Your task to perform on an android device: turn off sleep mode Image 0: 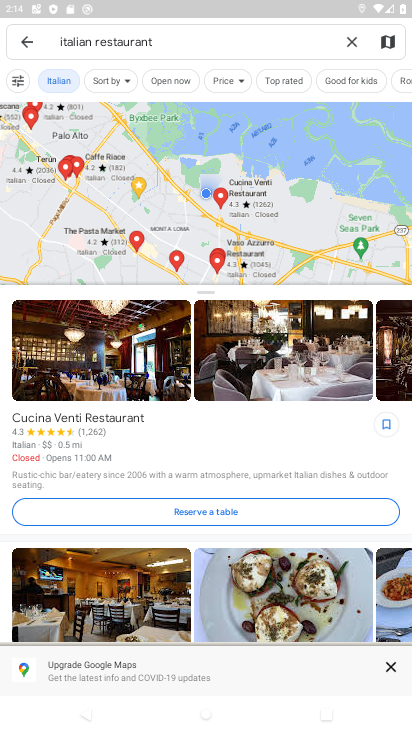
Step 0: press home button
Your task to perform on an android device: turn off sleep mode Image 1: 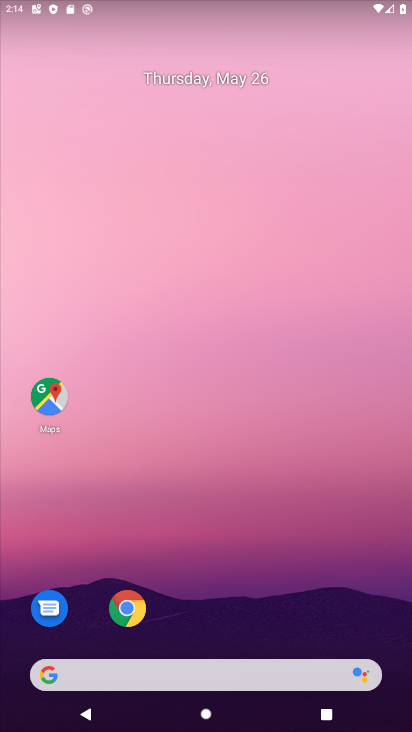
Step 1: drag from (341, 460) to (367, 81)
Your task to perform on an android device: turn off sleep mode Image 2: 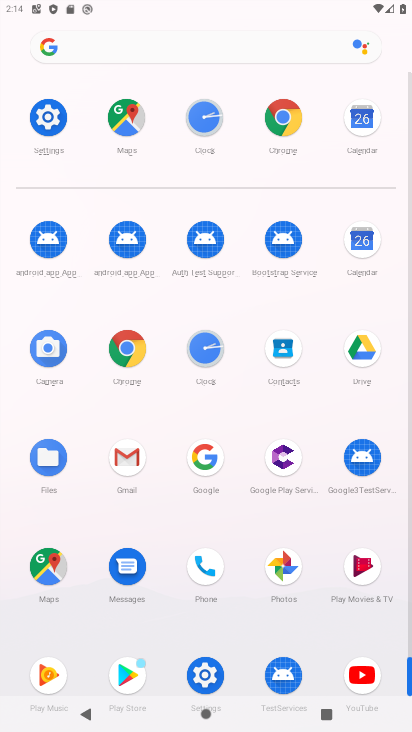
Step 2: click (36, 123)
Your task to perform on an android device: turn off sleep mode Image 3: 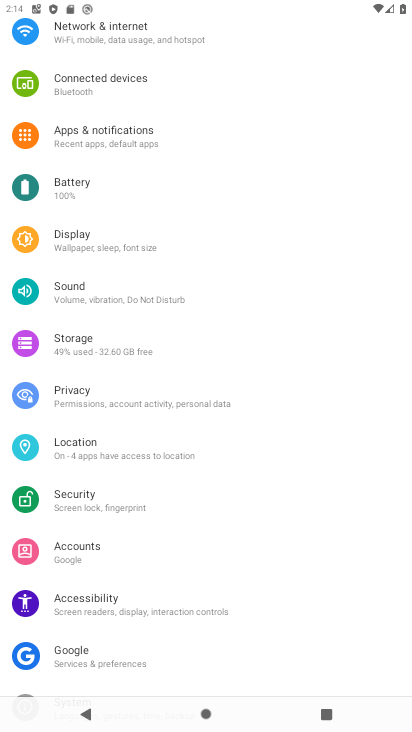
Step 3: click (144, 245)
Your task to perform on an android device: turn off sleep mode Image 4: 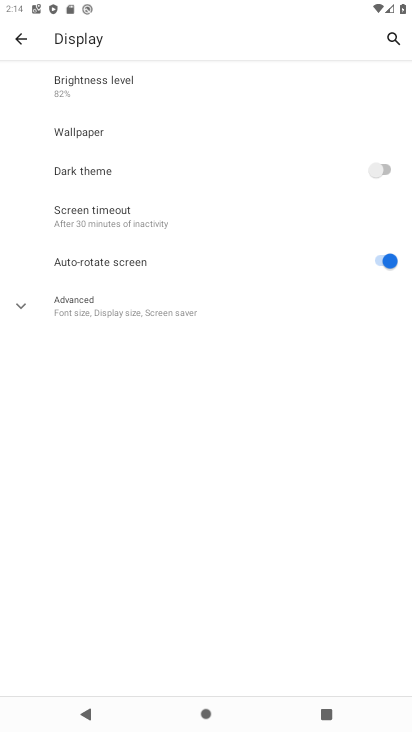
Step 4: click (130, 222)
Your task to perform on an android device: turn off sleep mode Image 5: 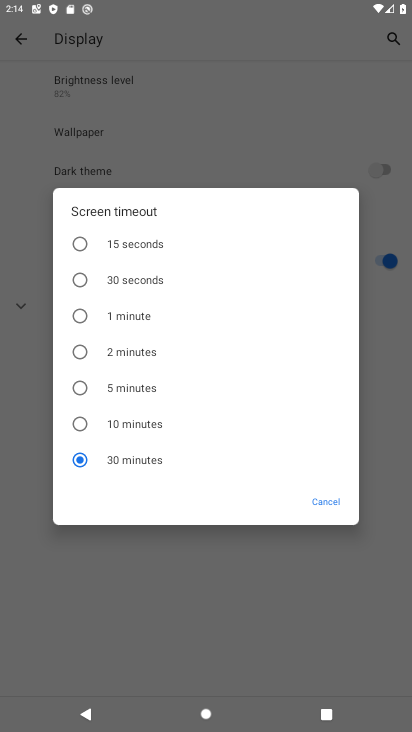
Step 5: task complete